Your task to perform on an android device: change text size in settings app Image 0: 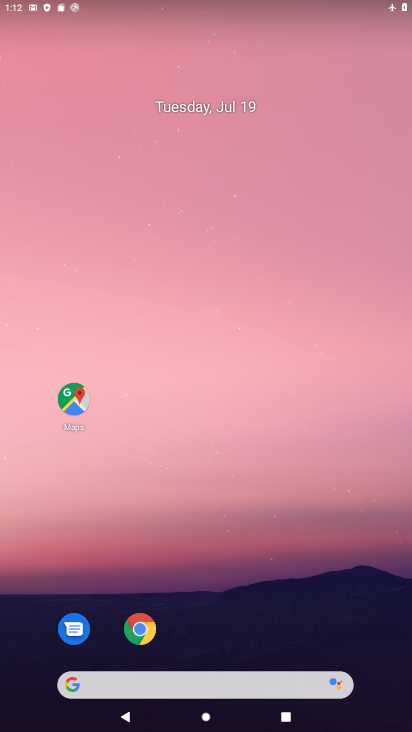
Step 0: drag from (228, 513) to (220, 54)
Your task to perform on an android device: change text size in settings app Image 1: 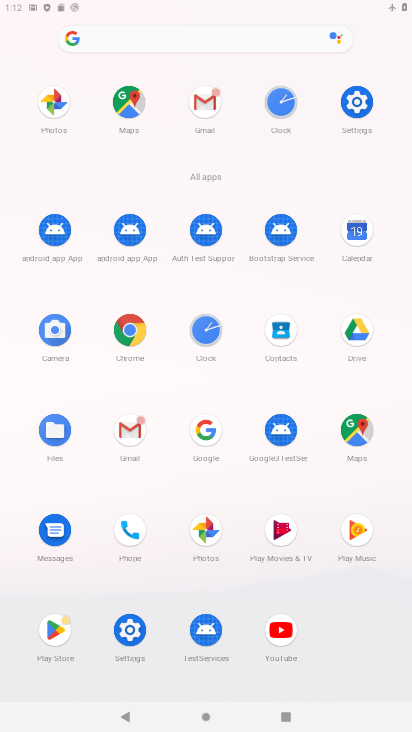
Step 1: drag from (177, 535) to (153, 100)
Your task to perform on an android device: change text size in settings app Image 2: 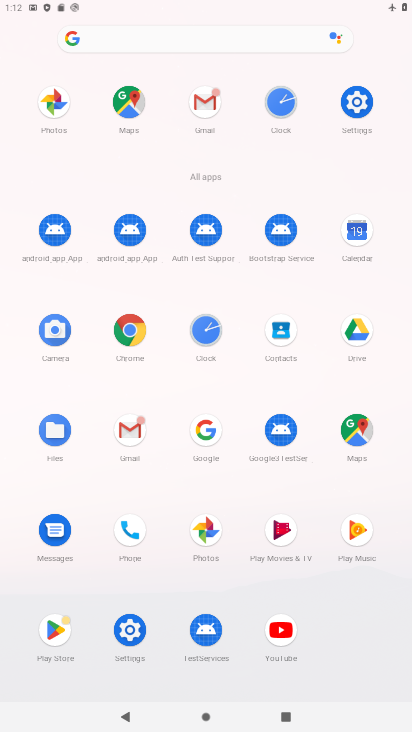
Step 2: click (126, 623)
Your task to perform on an android device: change text size in settings app Image 3: 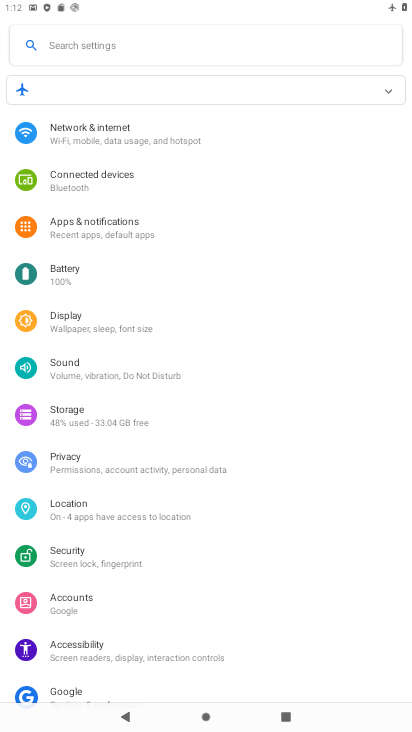
Step 3: click (62, 328)
Your task to perform on an android device: change text size in settings app Image 4: 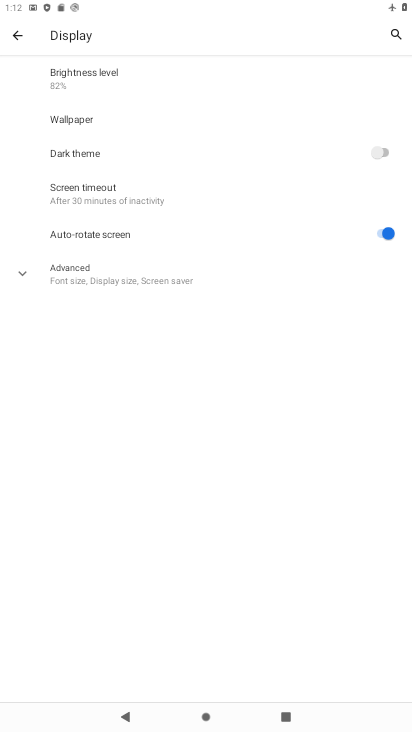
Step 4: click (75, 273)
Your task to perform on an android device: change text size in settings app Image 5: 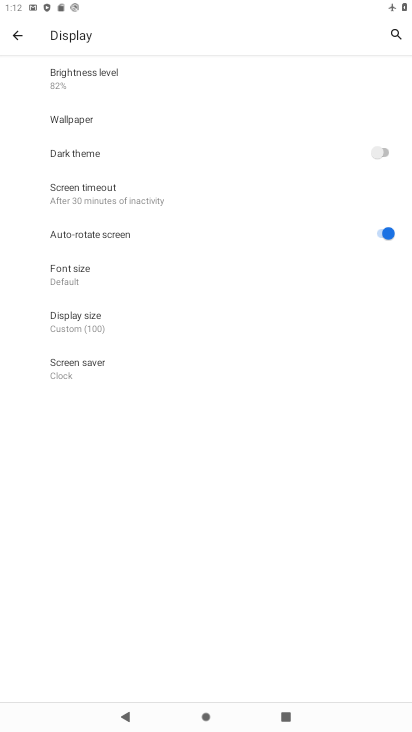
Step 5: click (75, 273)
Your task to perform on an android device: change text size in settings app Image 6: 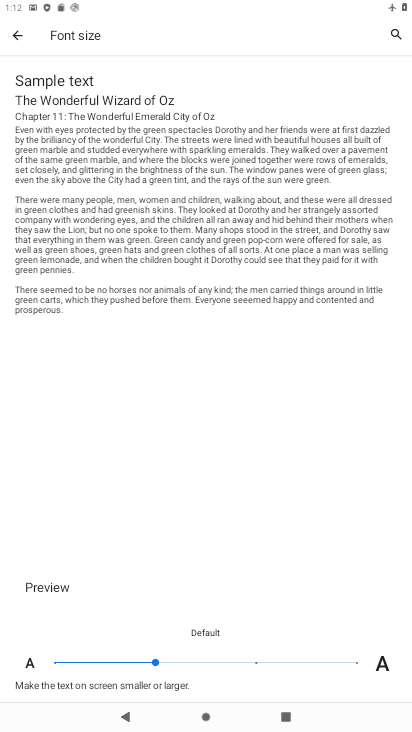
Step 6: click (252, 670)
Your task to perform on an android device: change text size in settings app Image 7: 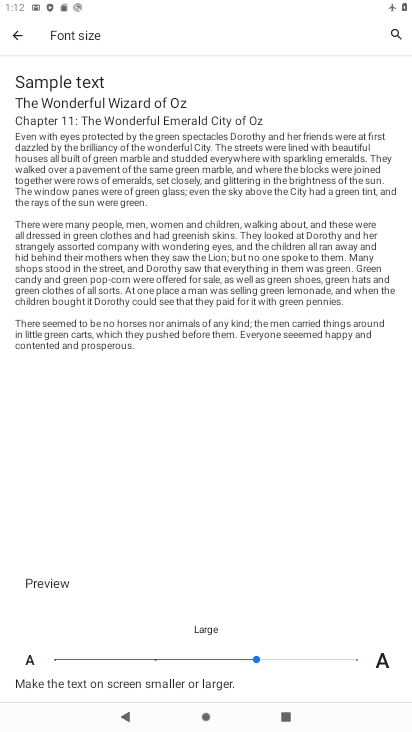
Step 7: task complete